Your task to perform on an android device: Open eBay Image 0: 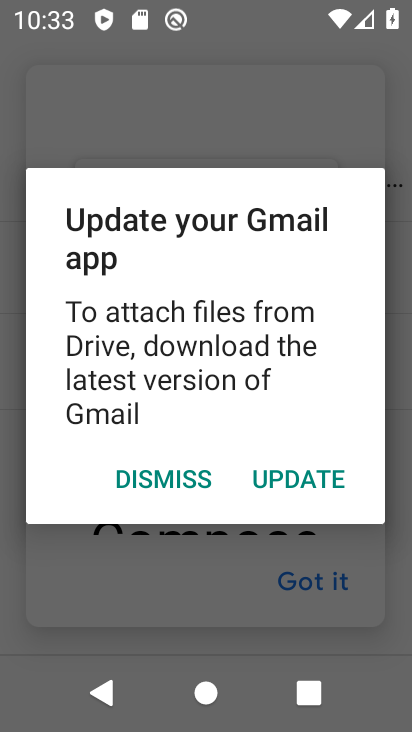
Step 0: press home button
Your task to perform on an android device: Open eBay Image 1: 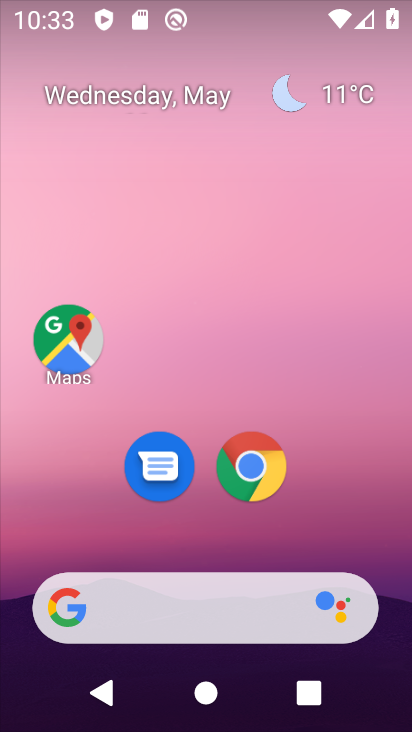
Step 1: drag from (313, 523) to (233, 91)
Your task to perform on an android device: Open eBay Image 2: 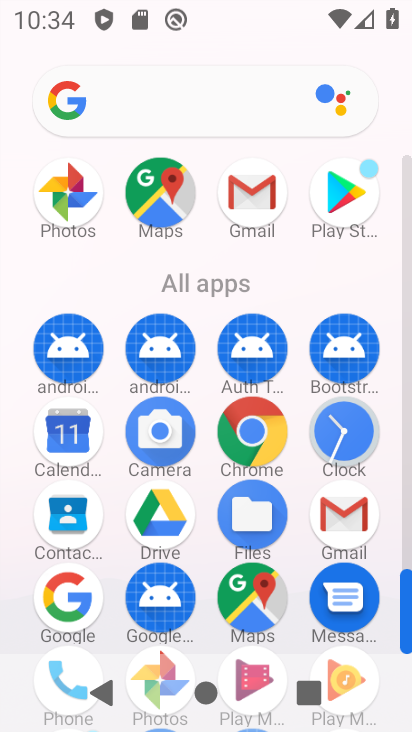
Step 2: drag from (204, 513) to (222, 301)
Your task to perform on an android device: Open eBay Image 3: 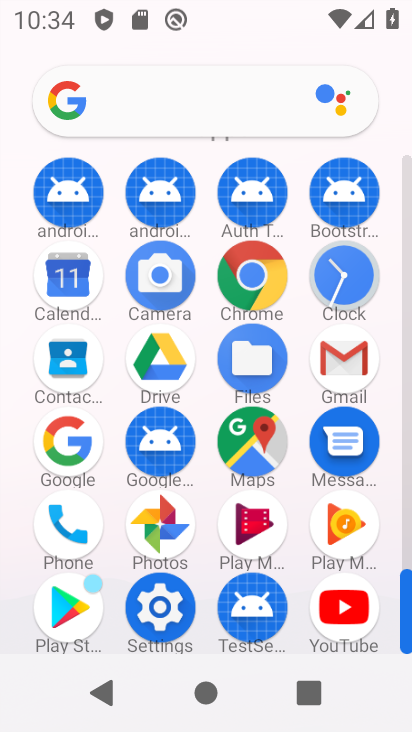
Step 3: click (62, 440)
Your task to perform on an android device: Open eBay Image 4: 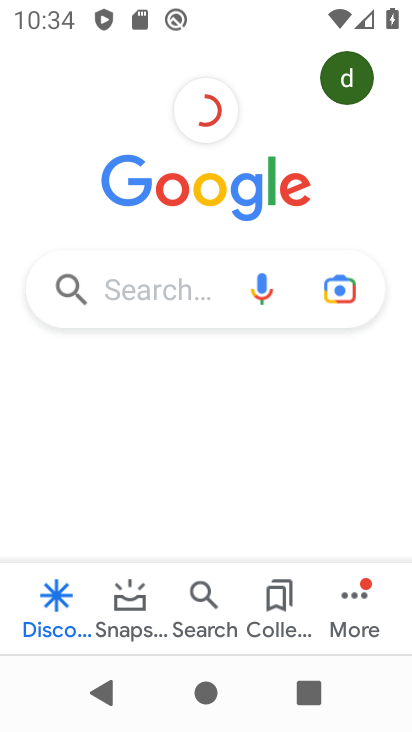
Step 4: click (169, 289)
Your task to perform on an android device: Open eBay Image 5: 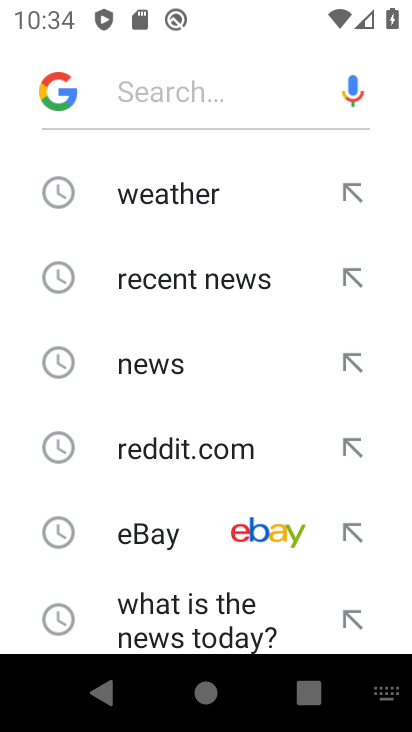
Step 5: type "eBay"
Your task to perform on an android device: Open eBay Image 6: 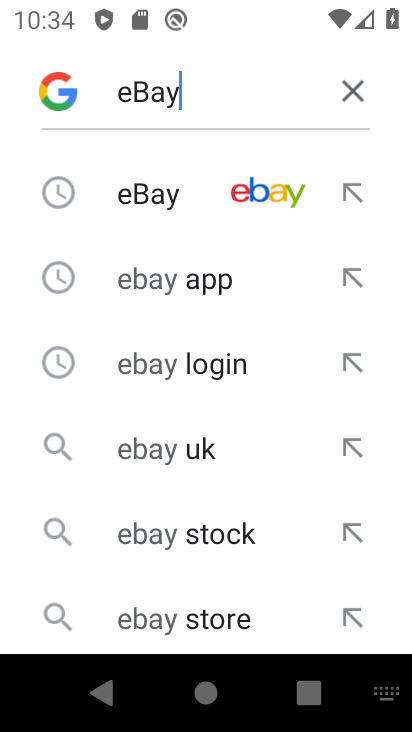
Step 6: click (163, 193)
Your task to perform on an android device: Open eBay Image 7: 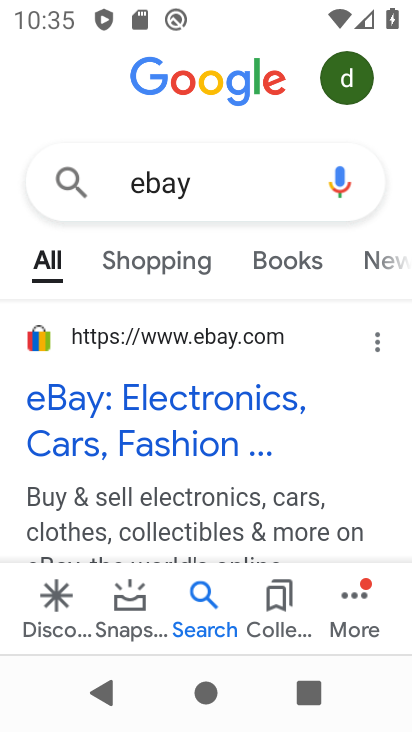
Step 7: click (233, 392)
Your task to perform on an android device: Open eBay Image 8: 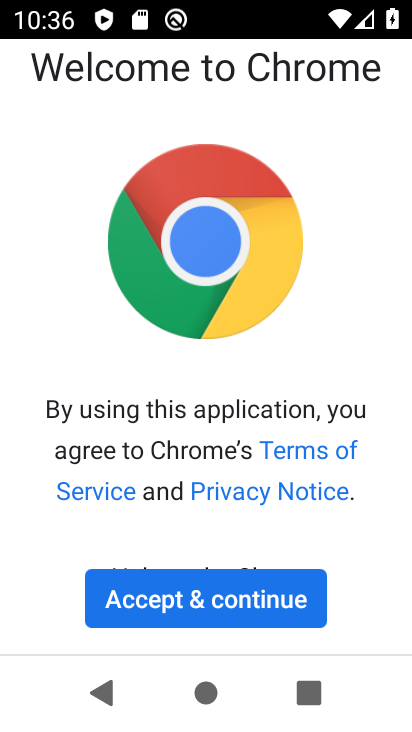
Step 8: click (202, 605)
Your task to perform on an android device: Open eBay Image 9: 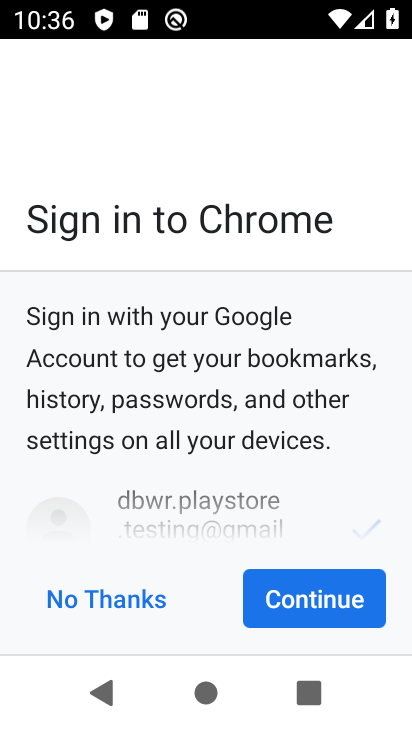
Step 9: press home button
Your task to perform on an android device: Open eBay Image 10: 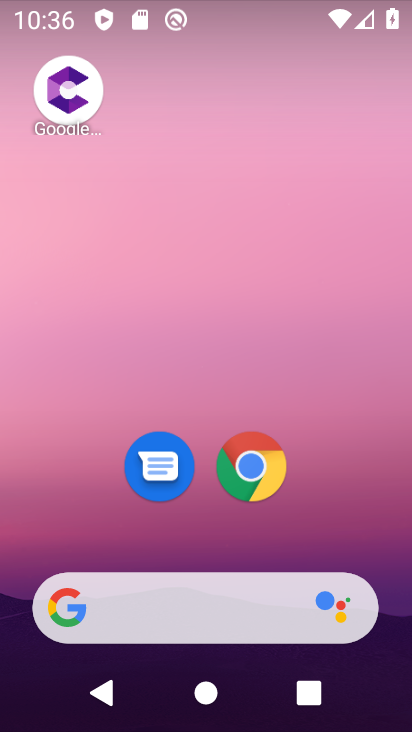
Step 10: drag from (314, 542) to (293, 90)
Your task to perform on an android device: Open eBay Image 11: 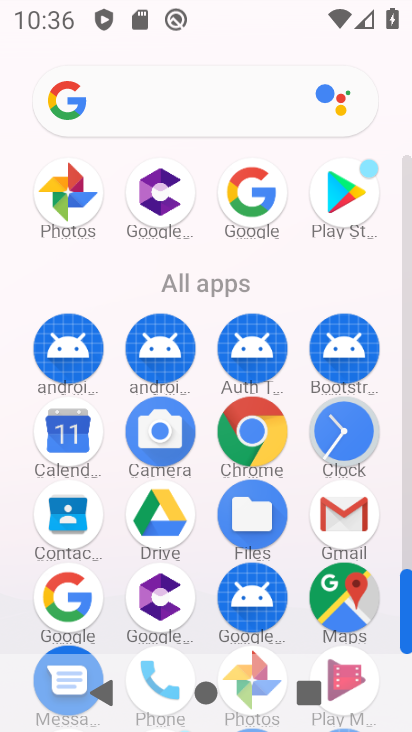
Step 11: click (246, 193)
Your task to perform on an android device: Open eBay Image 12: 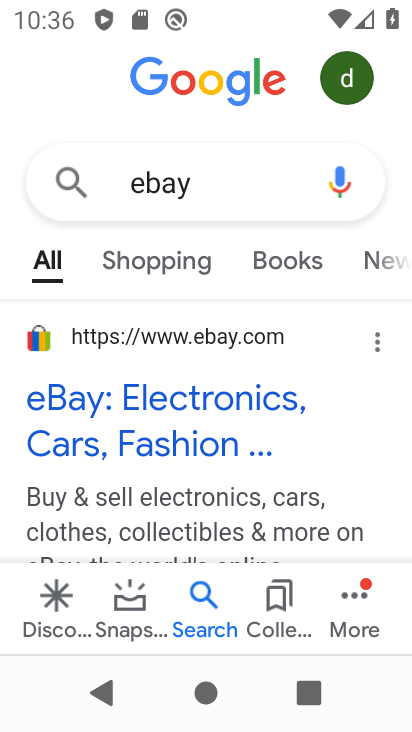
Step 12: click (178, 401)
Your task to perform on an android device: Open eBay Image 13: 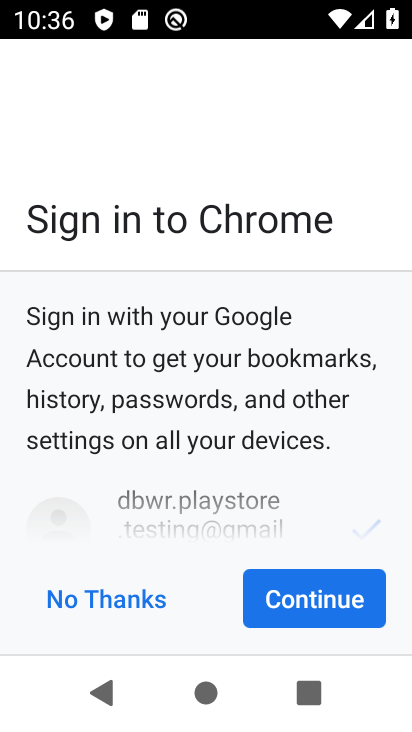
Step 13: click (323, 611)
Your task to perform on an android device: Open eBay Image 14: 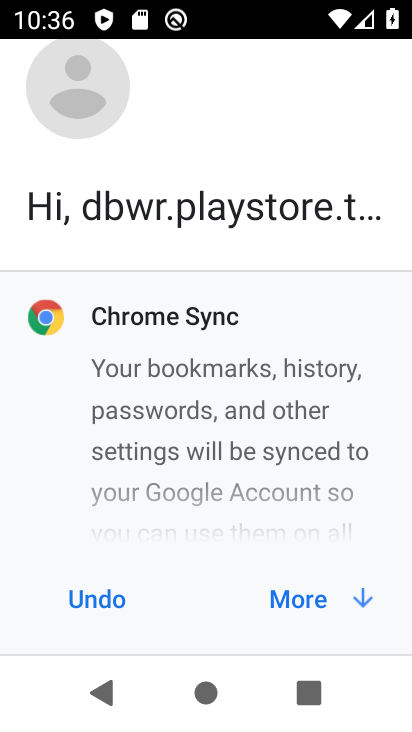
Step 14: click (323, 611)
Your task to perform on an android device: Open eBay Image 15: 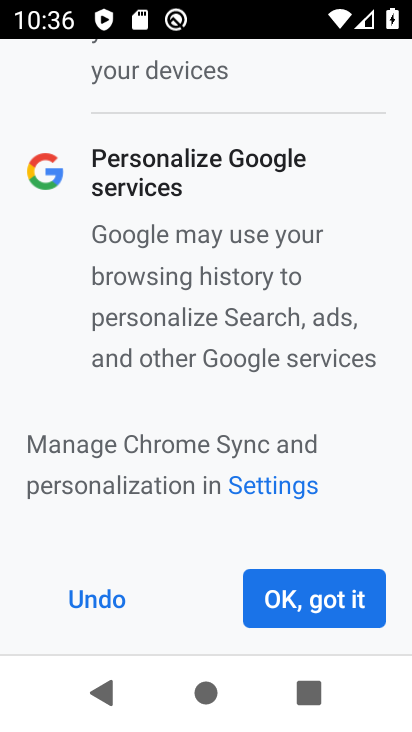
Step 15: click (323, 611)
Your task to perform on an android device: Open eBay Image 16: 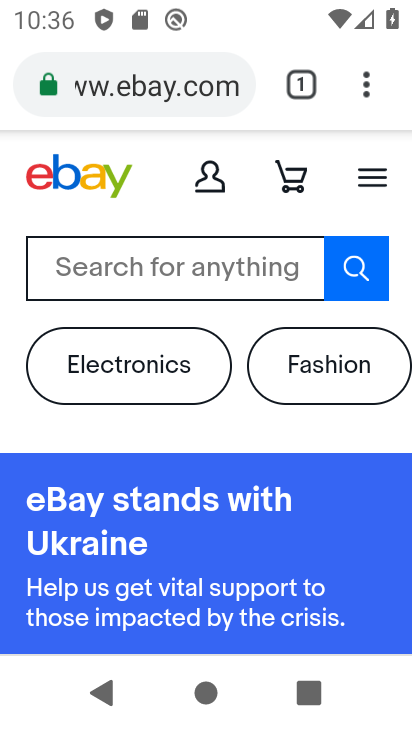
Step 16: task complete